Your task to perform on an android device: open chrome privacy settings Image 0: 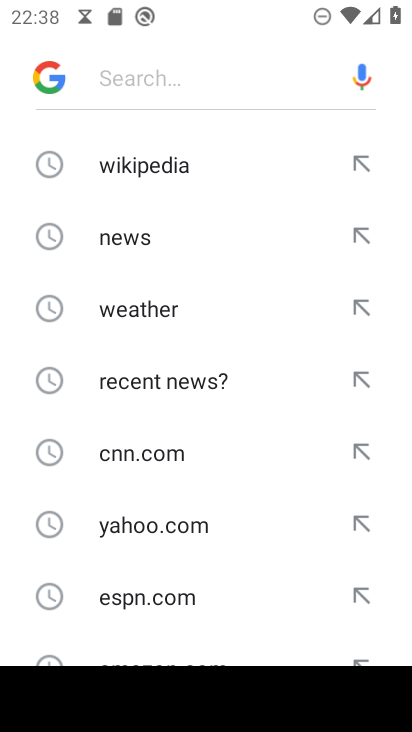
Step 0: press home button
Your task to perform on an android device: open chrome privacy settings Image 1: 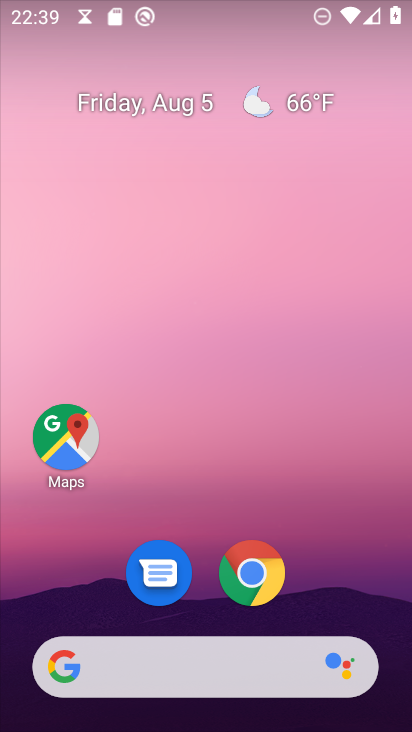
Step 1: click (253, 572)
Your task to perform on an android device: open chrome privacy settings Image 2: 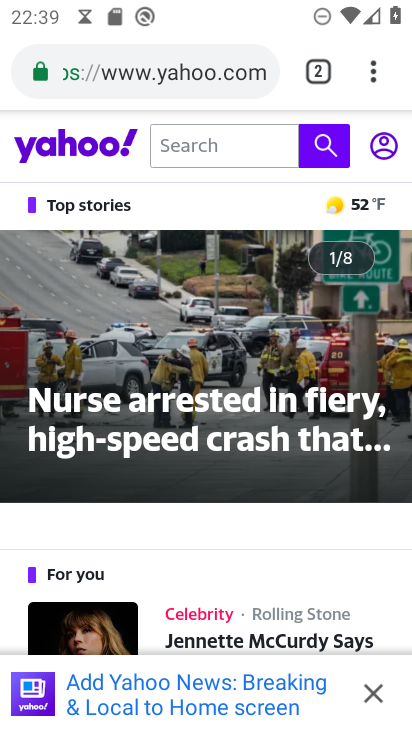
Step 2: click (375, 73)
Your task to perform on an android device: open chrome privacy settings Image 3: 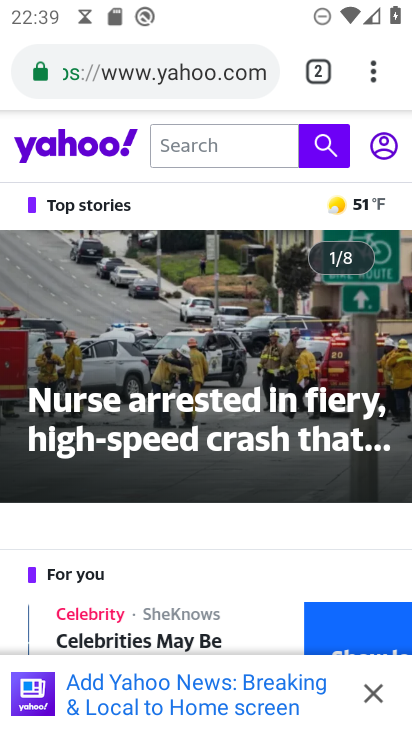
Step 3: click (380, 69)
Your task to perform on an android device: open chrome privacy settings Image 4: 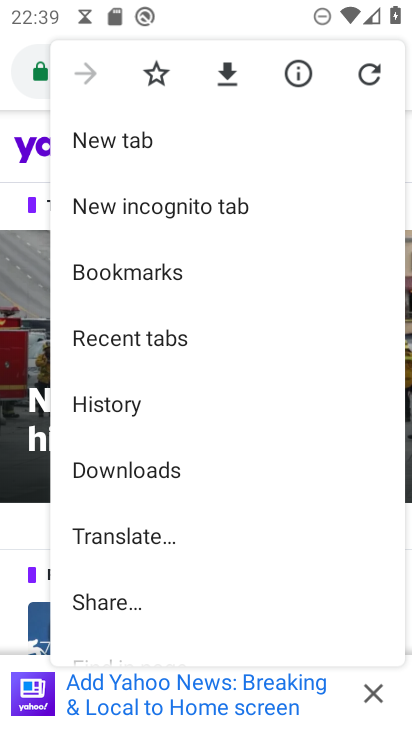
Step 4: drag from (194, 522) to (240, 239)
Your task to perform on an android device: open chrome privacy settings Image 5: 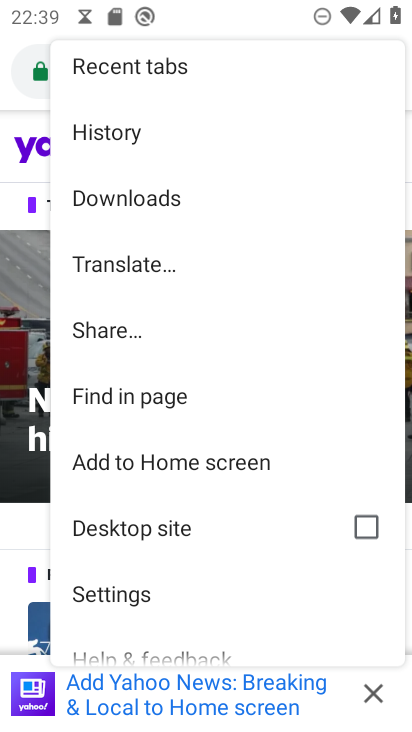
Step 5: click (113, 594)
Your task to perform on an android device: open chrome privacy settings Image 6: 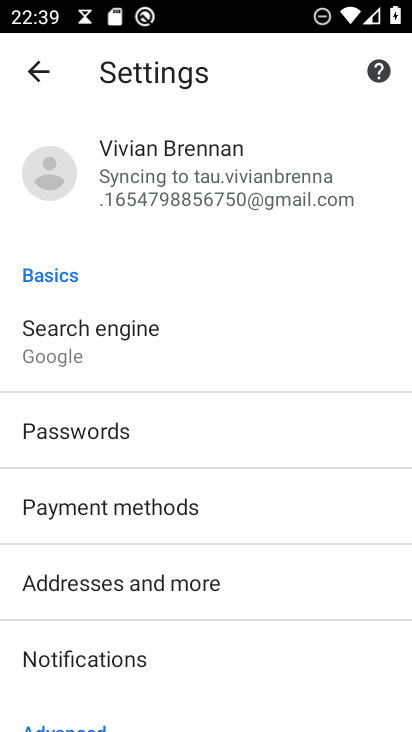
Step 6: drag from (137, 605) to (182, 372)
Your task to perform on an android device: open chrome privacy settings Image 7: 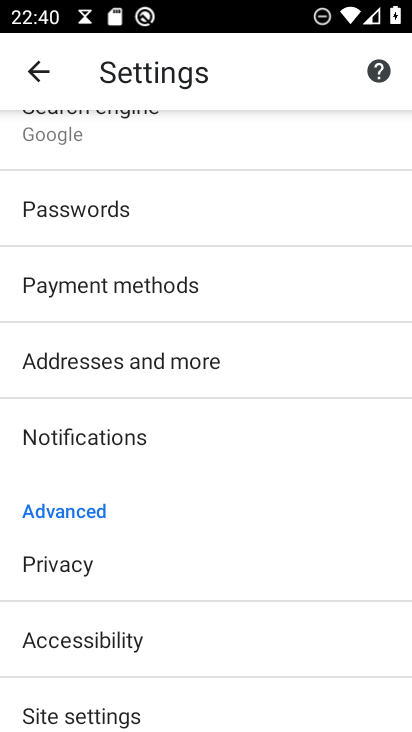
Step 7: click (60, 562)
Your task to perform on an android device: open chrome privacy settings Image 8: 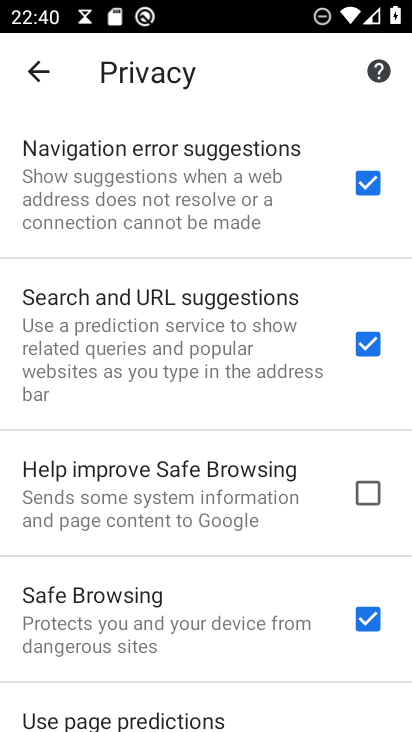
Step 8: task complete